Your task to perform on an android device: Go to accessibility settings Image 0: 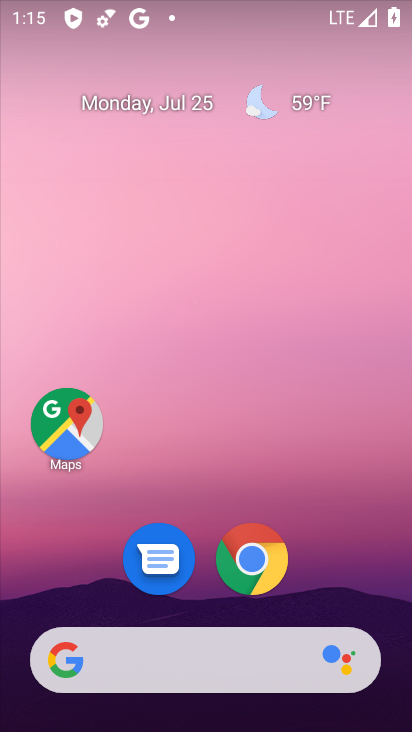
Step 0: drag from (55, 593) to (220, 29)
Your task to perform on an android device: Go to accessibility settings Image 1: 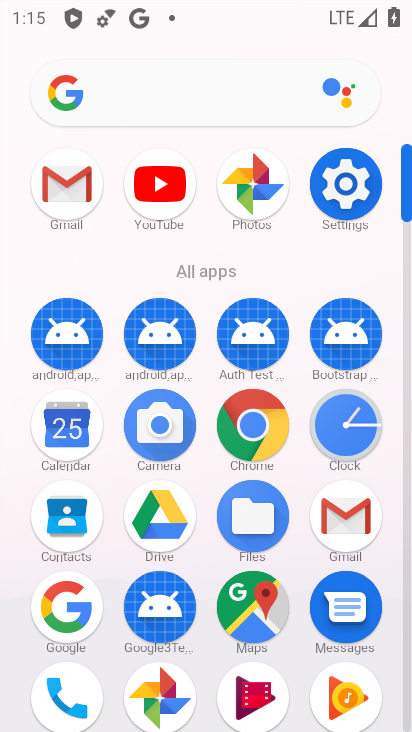
Step 1: click (352, 188)
Your task to perform on an android device: Go to accessibility settings Image 2: 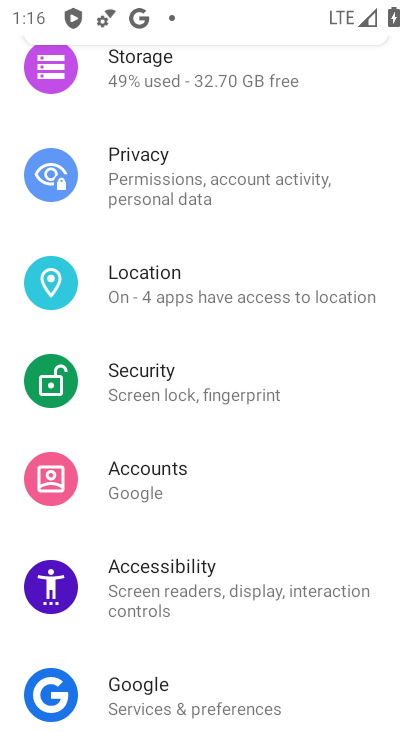
Step 2: drag from (205, 583) to (265, 173)
Your task to perform on an android device: Go to accessibility settings Image 3: 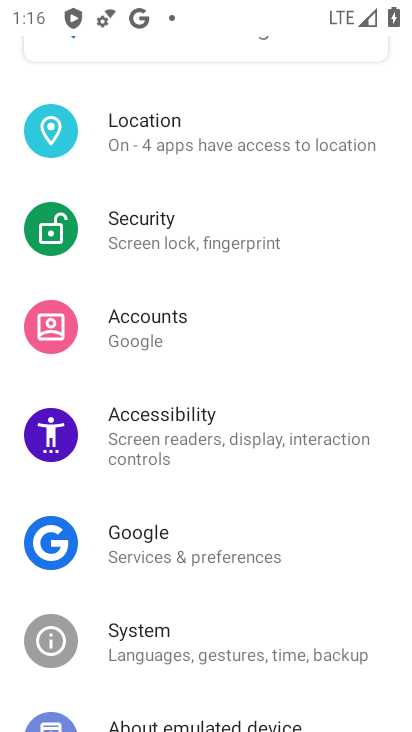
Step 3: click (144, 421)
Your task to perform on an android device: Go to accessibility settings Image 4: 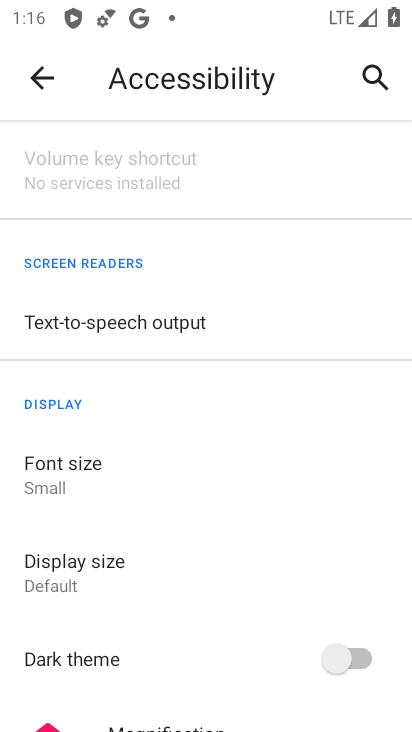
Step 4: task complete